Your task to perform on an android device: turn off sleep mode Image 0: 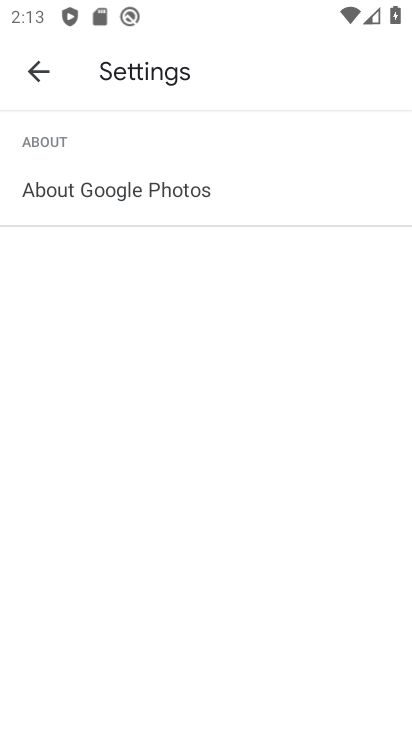
Step 0: press home button
Your task to perform on an android device: turn off sleep mode Image 1: 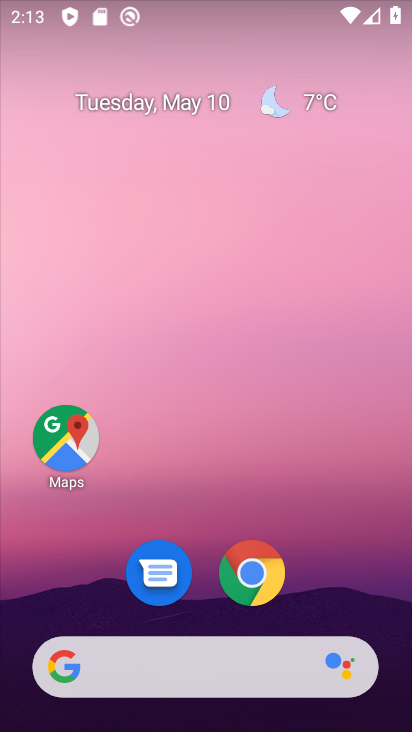
Step 1: drag from (307, 550) to (246, 54)
Your task to perform on an android device: turn off sleep mode Image 2: 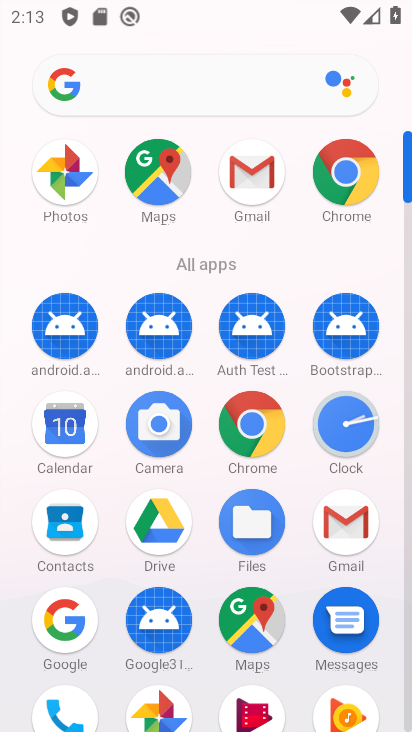
Step 2: drag from (198, 367) to (166, 124)
Your task to perform on an android device: turn off sleep mode Image 3: 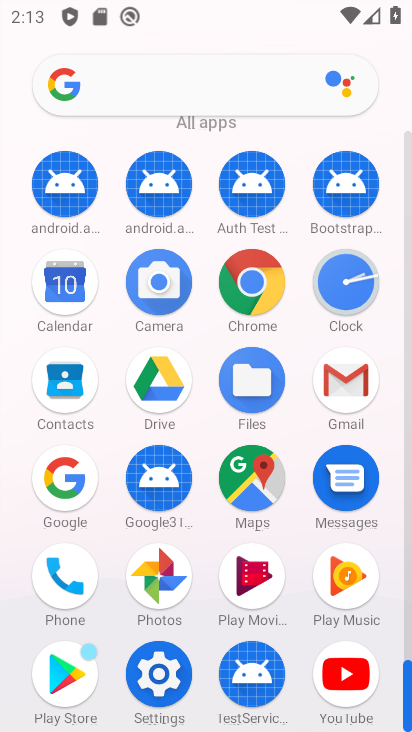
Step 3: click (169, 662)
Your task to perform on an android device: turn off sleep mode Image 4: 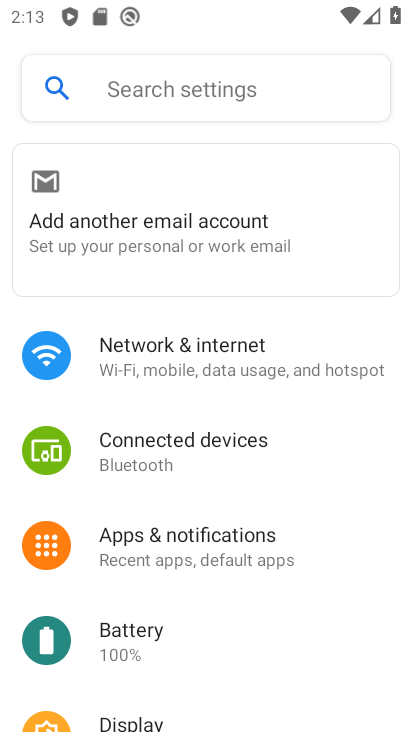
Step 4: drag from (221, 592) to (215, 123)
Your task to perform on an android device: turn off sleep mode Image 5: 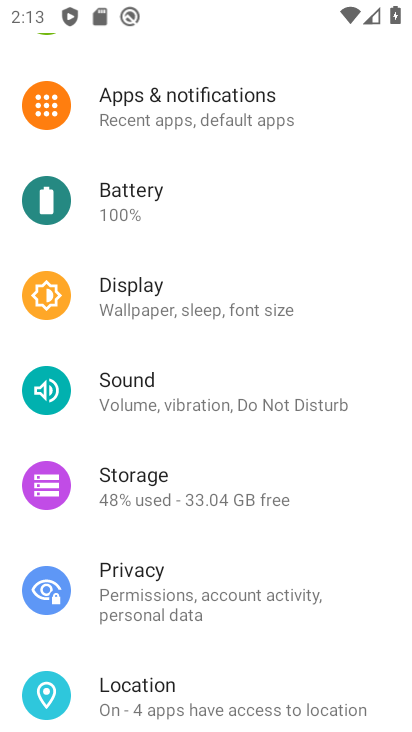
Step 5: click (215, 302)
Your task to perform on an android device: turn off sleep mode Image 6: 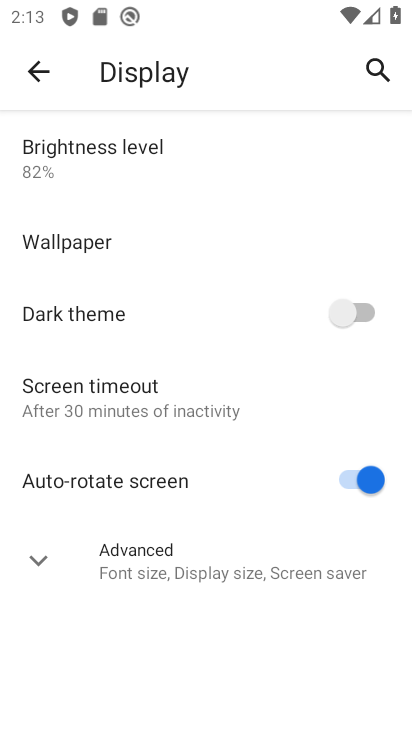
Step 6: click (41, 566)
Your task to perform on an android device: turn off sleep mode Image 7: 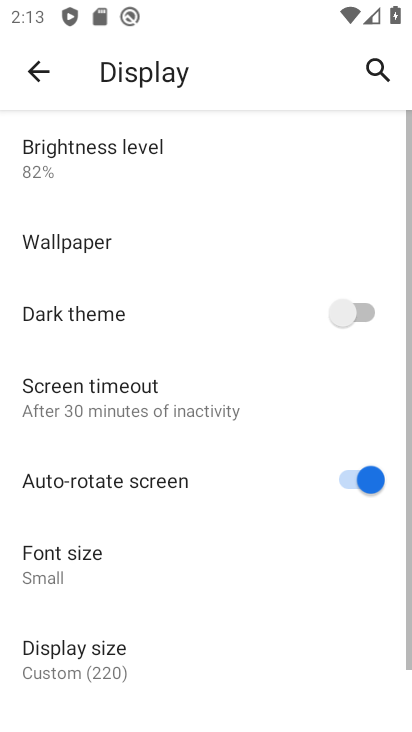
Step 7: drag from (184, 588) to (202, 297)
Your task to perform on an android device: turn off sleep mode Image 8: 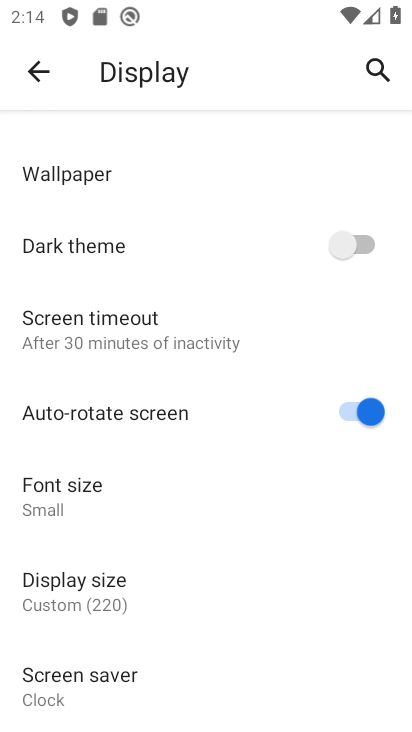
Step 8: click (144, 599)
Your task to perform on an android device: turn off sleep mode Image 9: 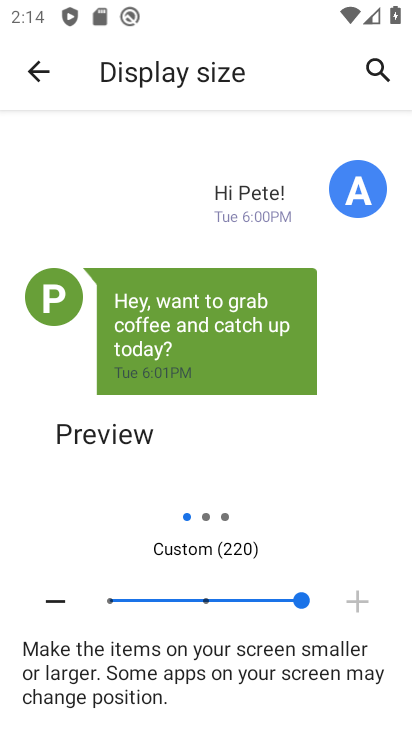
Step 9: click (50, 599)
Your task to perform on an android device: turn off sleep mode Image 10: 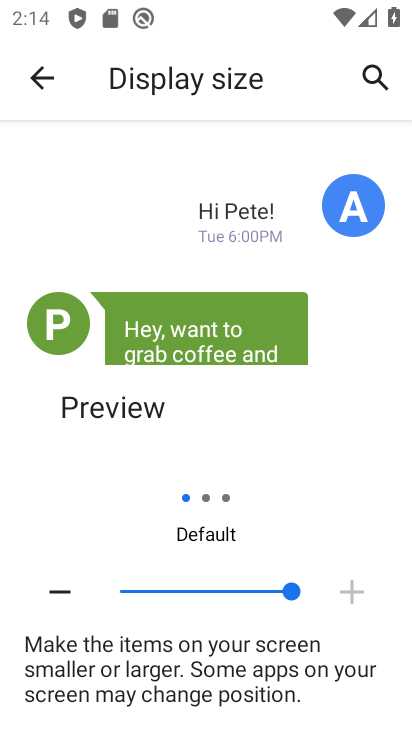
Step 10: click (61, 584)
Your task to perform on an android device: turn off sleep mode Image 11: 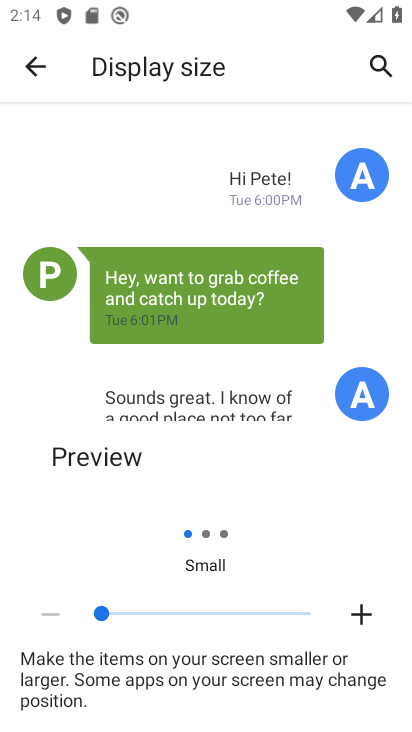
Step 11: task complete